Your task to perform on an android device: Open location settings Image 0: 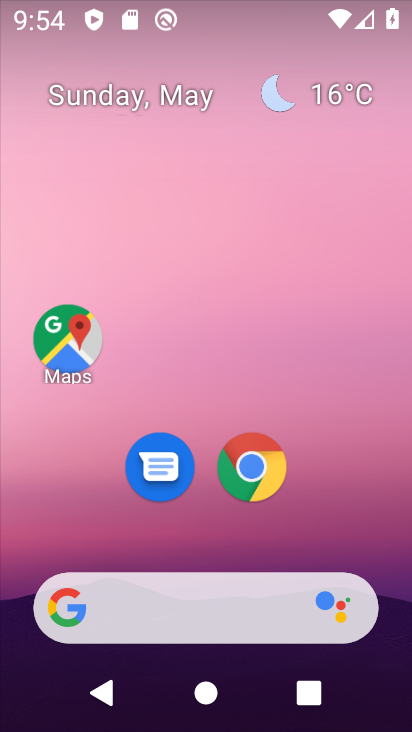
Step 0: drag from (380, 513) to (279, 27)
Your task to perform on an android device: Open location settings Image 1: 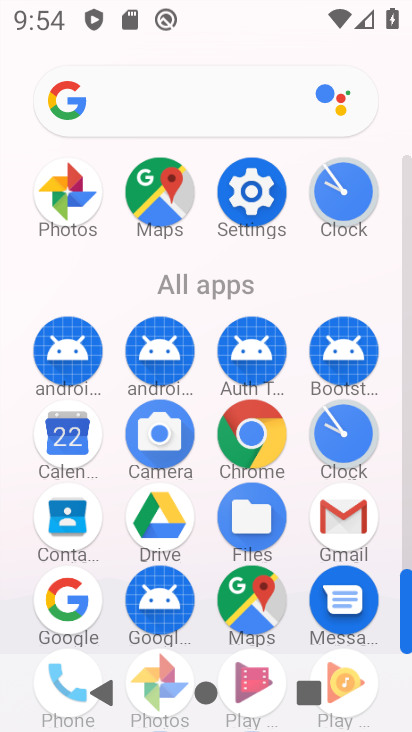
Step 1: click (257, 209)
Your task to perform on an android device: Open location settings Image 2: 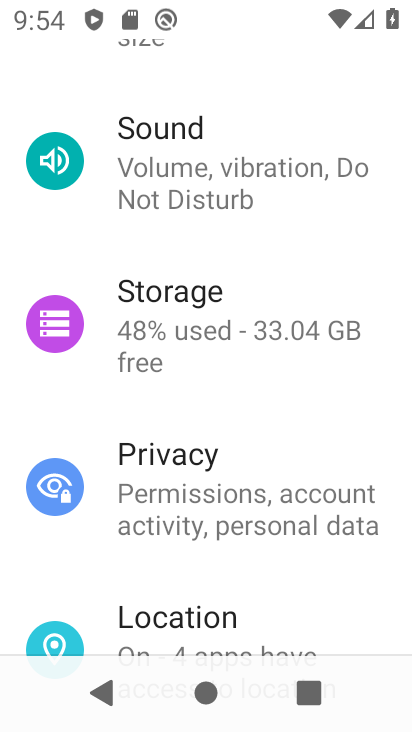
Step 2: drag from (246, 523) to (306, 168)
Your task to perform on an android device: Open location settings Image 3: 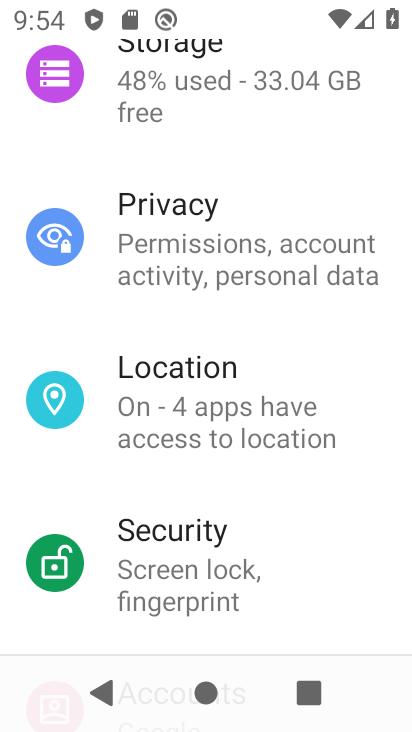
Step 3: click (246, 409)
Your task to perform on an android device: Open location settings Image 4: 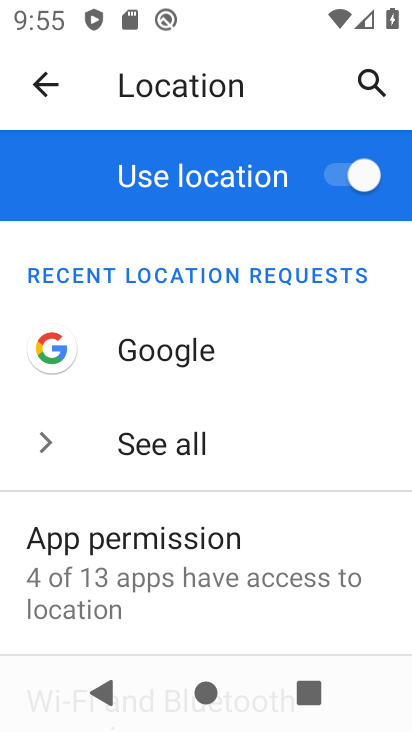
Step 4: task complete